Your task to perform on an android device: Open Google Image 0: 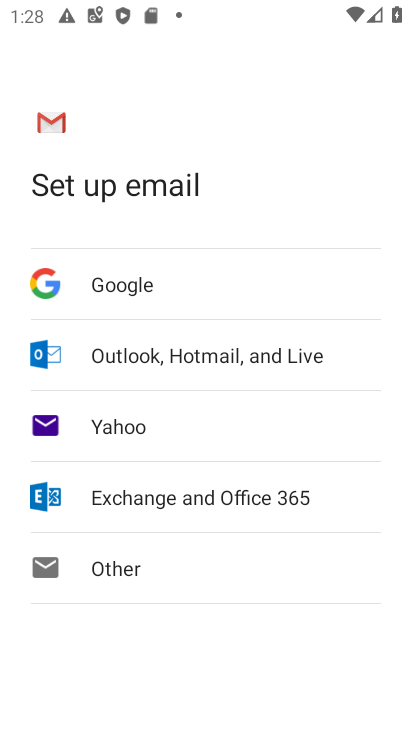
Step 0: press home button
Your task to perform on an android device: Open Google Image 1: 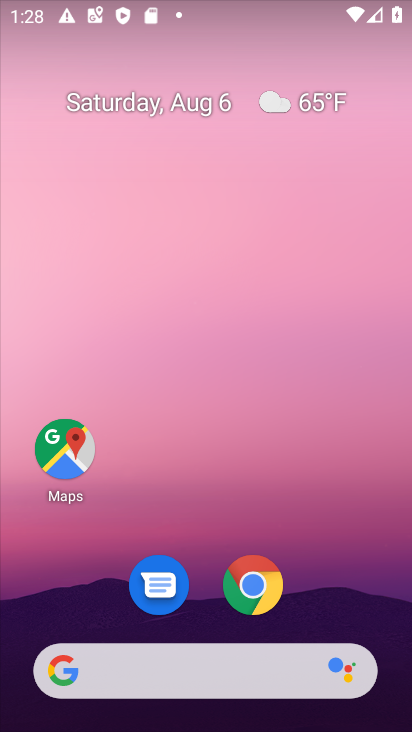
Step 1: click (223, 683)
Your task to perform on an android device: Open Google Image 2: 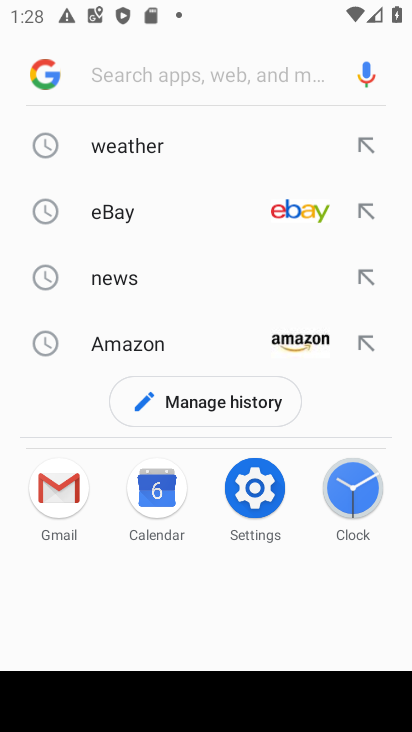
Step 2: click (41, 77)
Your task to perform on an android device: Open Google Image 3: 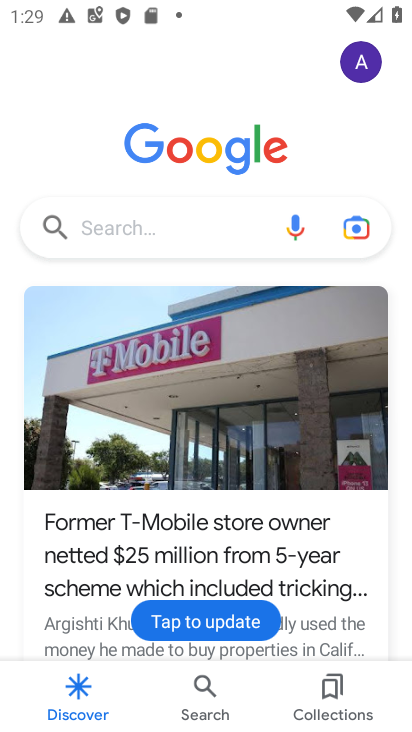
Step 3: task complete